Your task to perform on an android device: Go to internet settings Image 0: 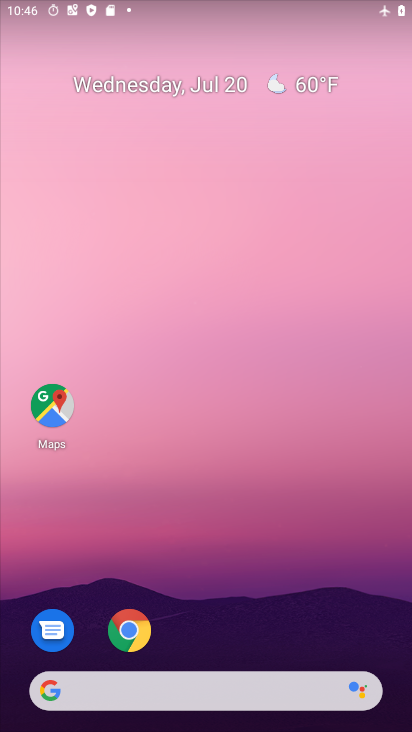
Step 0: drag from (247, 637) to (327, 5)
Your task to perform on an android device: Go to internet settings Image 1: 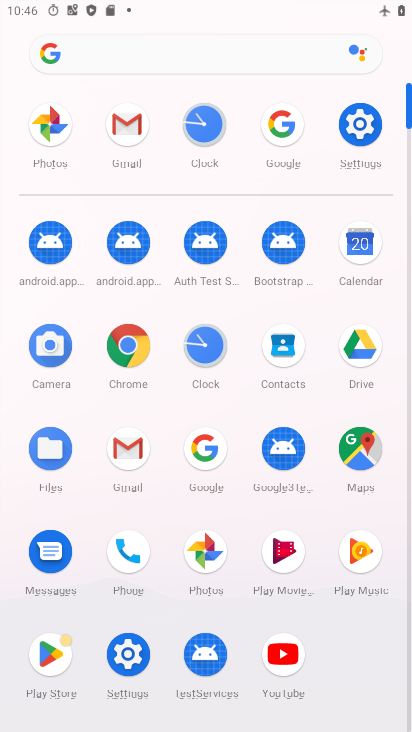
Step 1: click (364, 126)
Your task to perform on an android device: Go to internet settings Image 2: 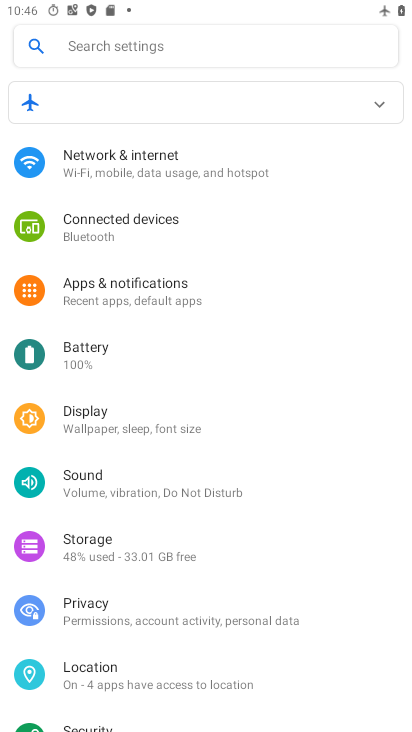
Step 2: click (103, 155)
Your task to perform on an android device: Go to internet settings Image 3: 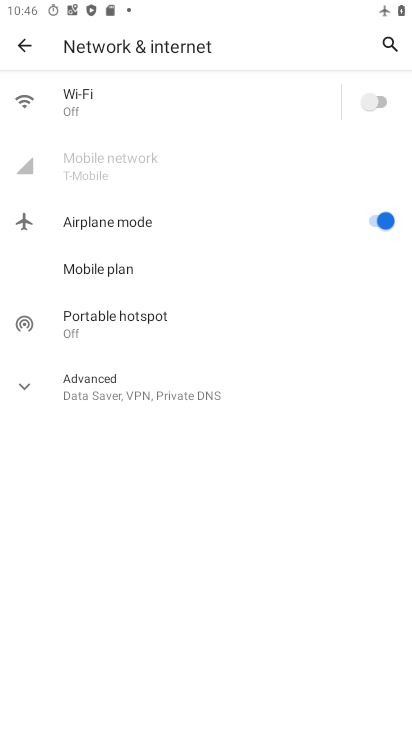
Step 3: click (110, 114)
Your task to perform on an android device: Go to internet settings Image 4: 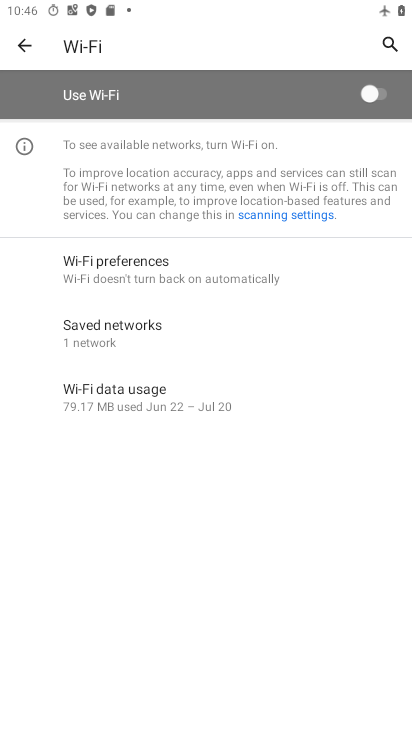
Step 4: click (388, 96)
Your task to perform on an android device: Go to internet settings Image 5: 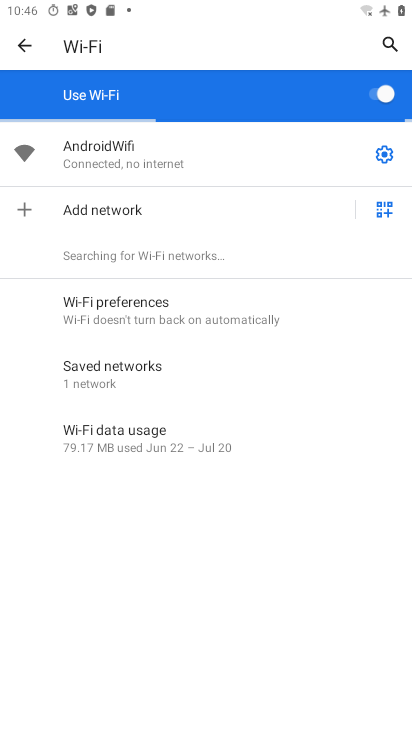
Step 5: click (193, 149)
Your task to perform on an android device: Go to internet settings Image 6: 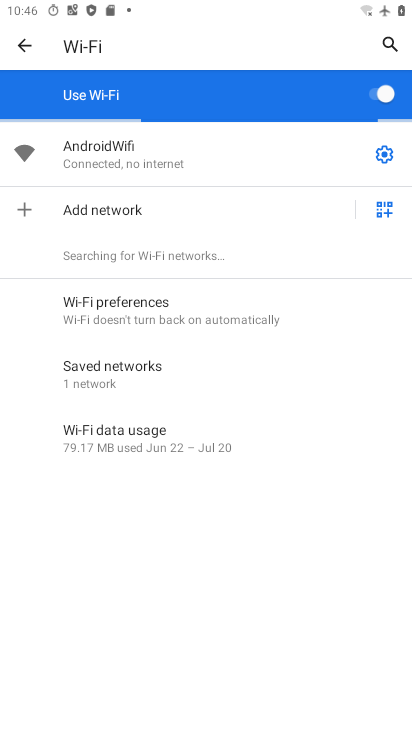
Step 6: click (236, 153)
Your task to perform on an android device: Go to internet settings Image 7: 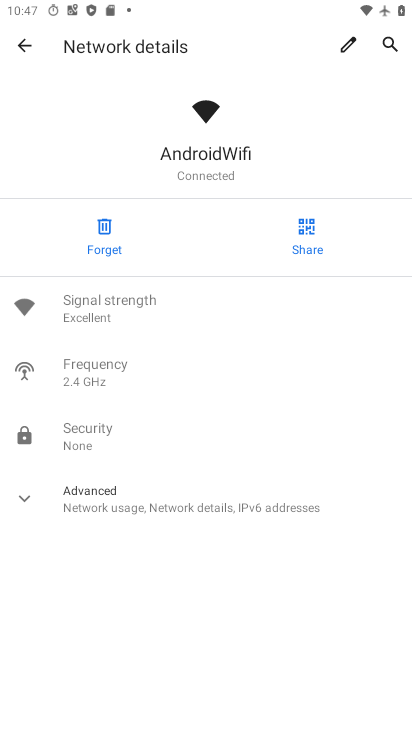
Step 7: task complete